Your task to perform on an android device: toggle translation in the chrome app Image 0: 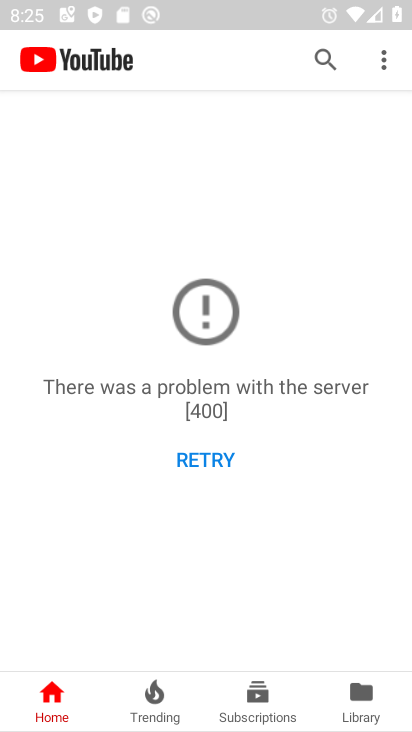
Step 0: press home button
Your task to perform on an android device: toggle translation in the chrome app Image 1: 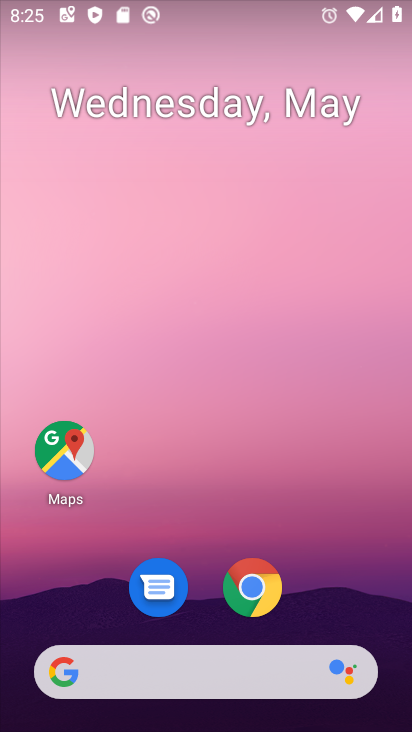
Step 1: click (249, 583)
Your task to perform on an android device: toggle translation in the chrome app Image 2: 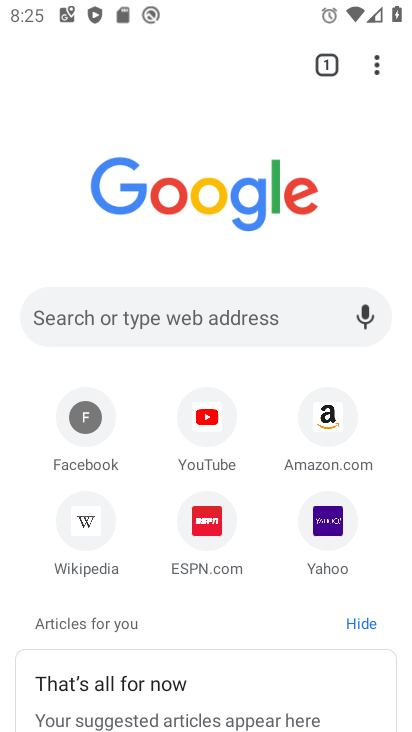
Step 2: click (379, 64)
Your task to perform on an android device: toggle translation in the chrome app Image 3: 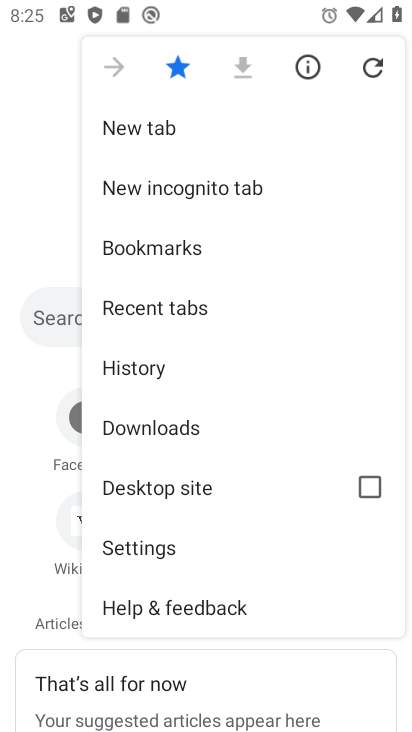
Step 3: click (139, 558)
Your task to perform on an android device: toggle translation in the chrome app Image 4: 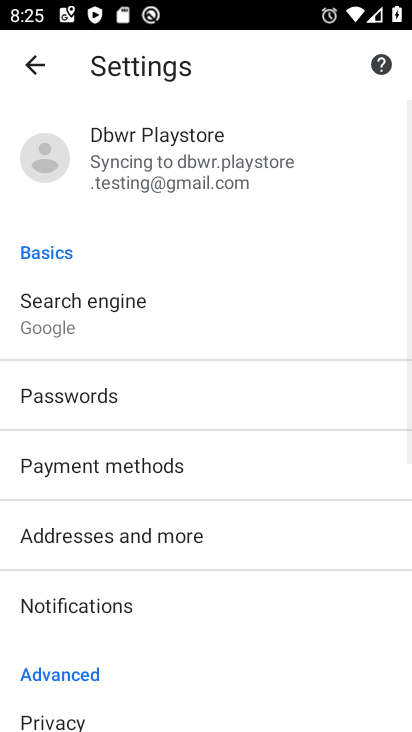
Step 4: drag from (86, 592) to (160, 324)
Your task to perform on an android device: toggle translation in the chrome app Image 5: 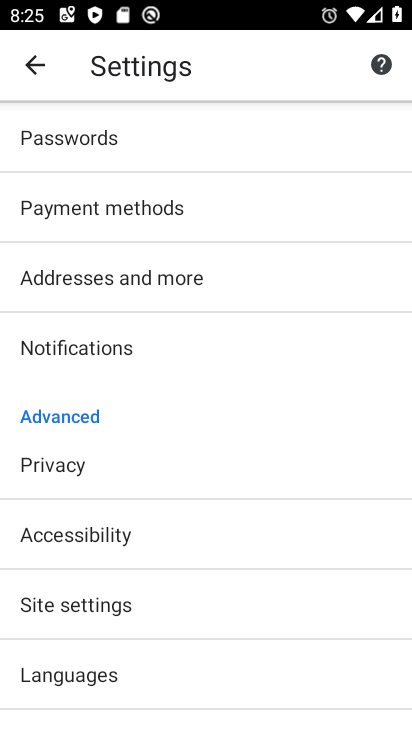
Step 5: drag from (133, 541) to (134, 439)
Your task to perform on an android device: toggle translation in the chrome app Image 6: 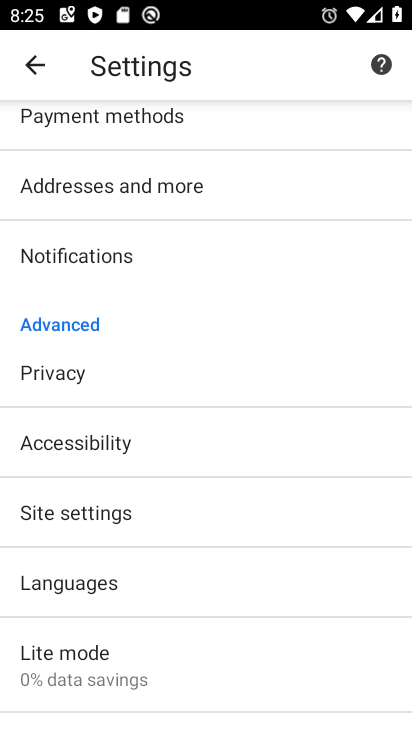
Step 6: click (97, 598)
Your task to perform on an android device: toggle translation in the chrome app Image 7: 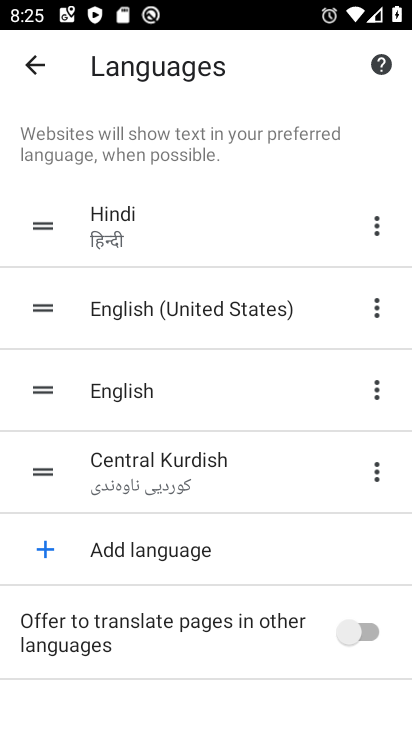
Step 7: click (366, 634)
Your task to perform on an android device: toggle translation in the chrome app Image 8: 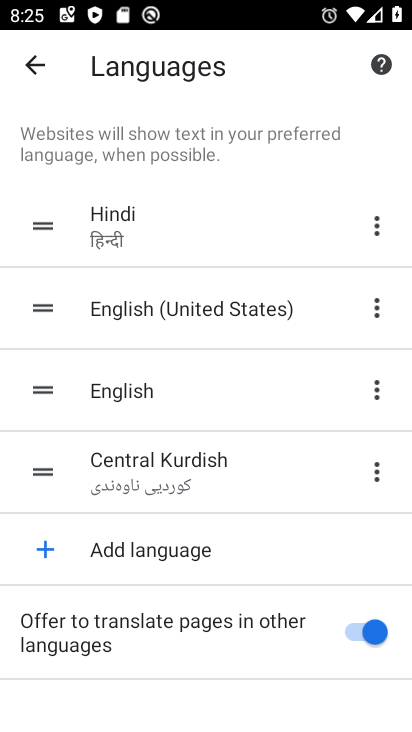
Step 8: task complete